Your task to perform on an android device: Search for the best value 4K TV on Best Buy Image 0: 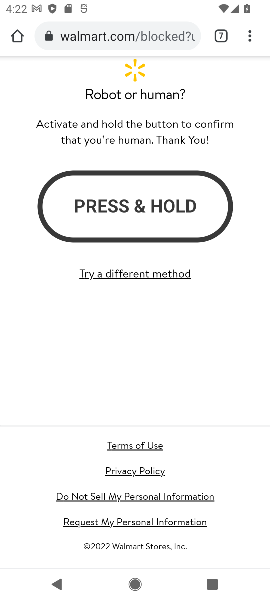
Step 0: press home button
Your task to perform on an android device: Search for the best value 4K TV on Best Buy Image 1: 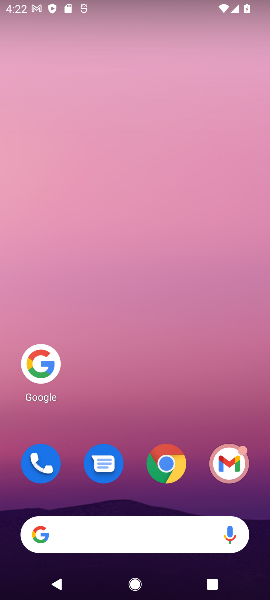
Step 1: click (53, 361)
Your task to perform on an android device: Search for the best value 4K TV on Best Buy Image 2: 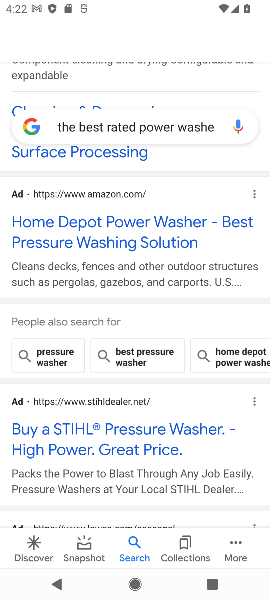
Step 2: click (157, 124)
Your task to perform on an android device: Search for the best value 4K TV on Best Buy Image 3: 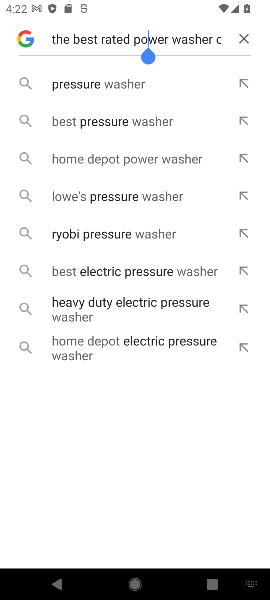
Step 3: click (244, 40)
Your task to perform on an android device: Search for the best value 4K TV on Best Buy Image 4: 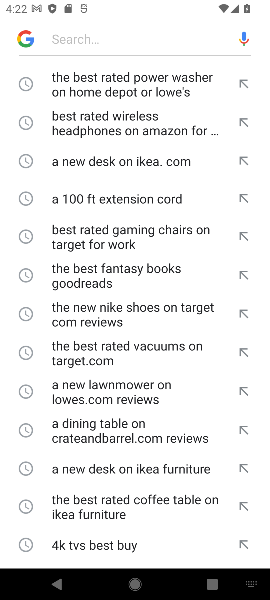
Step 4: click (151, 32)
Your task to perform on an android device: Search for the best value 4K TV on Best Buy Image 5: 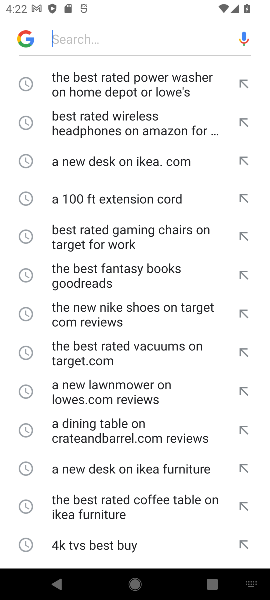
Step 5: type " best value 4K TV on Best Buy"
Your task to perform on an android device: Search for the best value 4K TV on Best Buy Image 6: 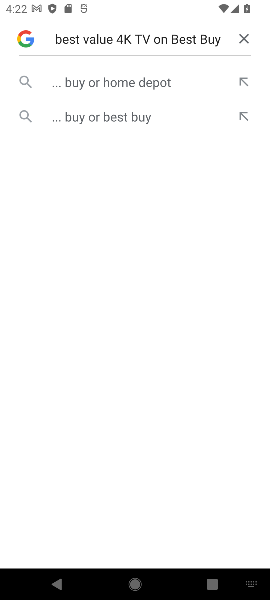
Step 6: click (110, 69)
Your task to perform on an android device: Search for the best value 4K TV on Best Buy Image 7: 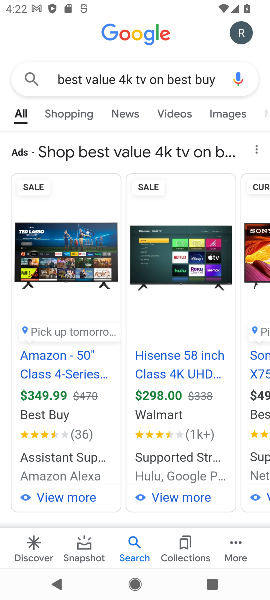
Step 7: task complete